Your task to perform on an android device: find snoozed emails in the gmail app Image 0: 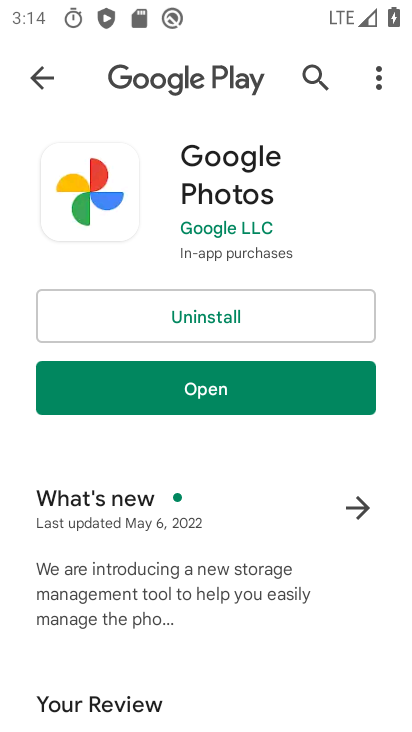
Step 0: press home button
Your task to perform on an android device: find snoozed emails in the gmail app Image 1: 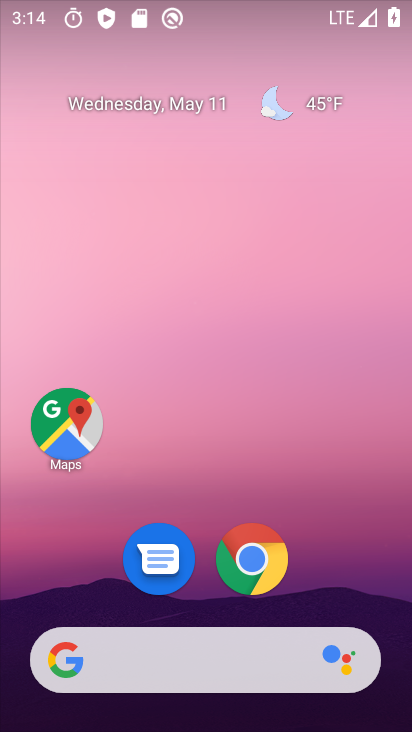
Step 1: drag from (322, 560) to (214, 45)
Your task to perform on an android device: find snoozed emails in the gmail app Image 2: 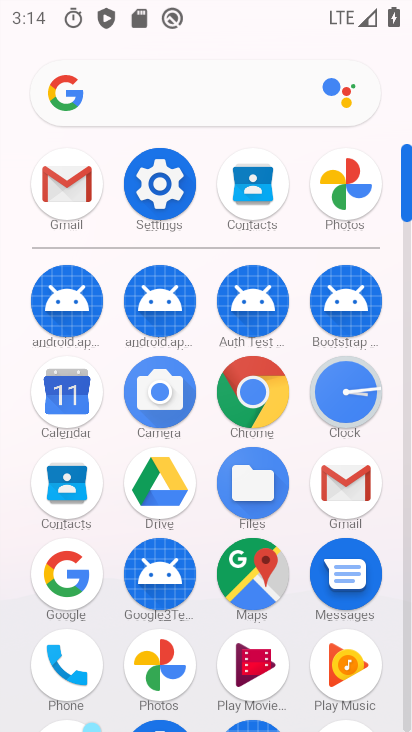
Step 2: click (361, 494)
Your task to perform on an android device: find snoozed emails in the gmail app Image 3: 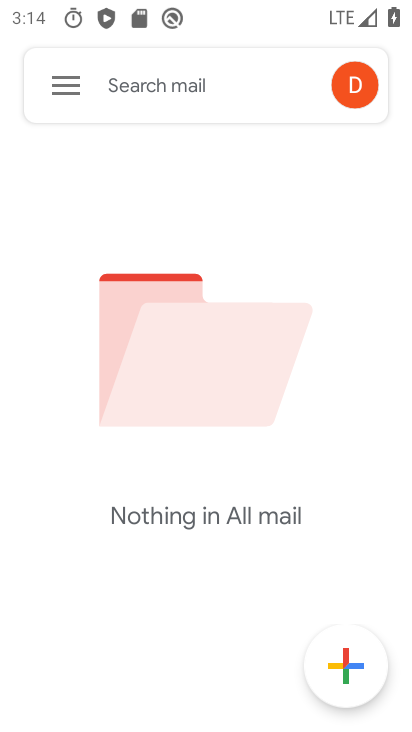
Step 3: click (59, 77)
Your task to perform on an android device: find snoozed emails in the gmail app Image 4: 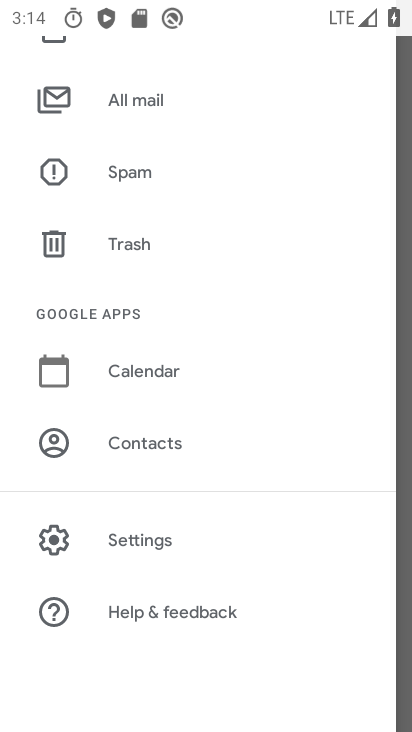
Step 4: drag from (232, 183) to (209, 726)
Your task to perform on an android device: find snoozed emails in the gmail app Image 5: 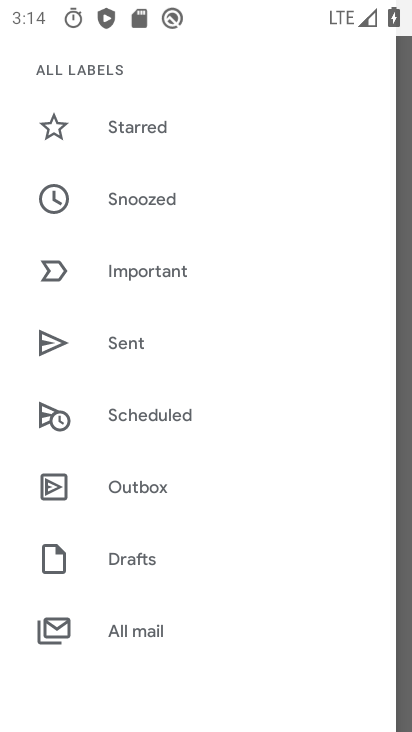
Step 5: click (160, 205)
Your task to perform on an android device: find snoozed emails in the gmail app Image 6: 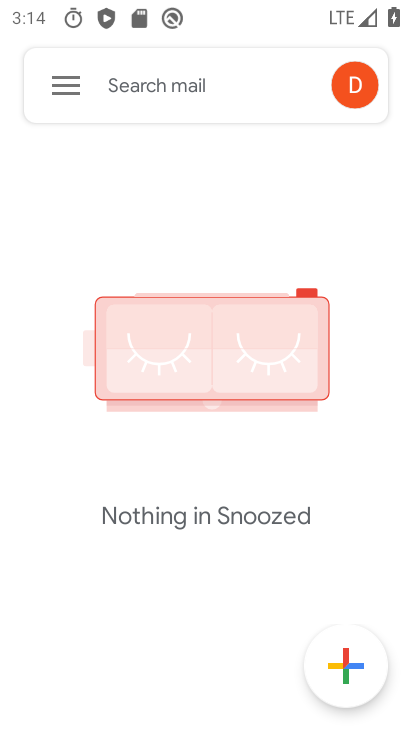
Step 6: task complete